Your task to perform on an android device: toggle wifi Image 0: 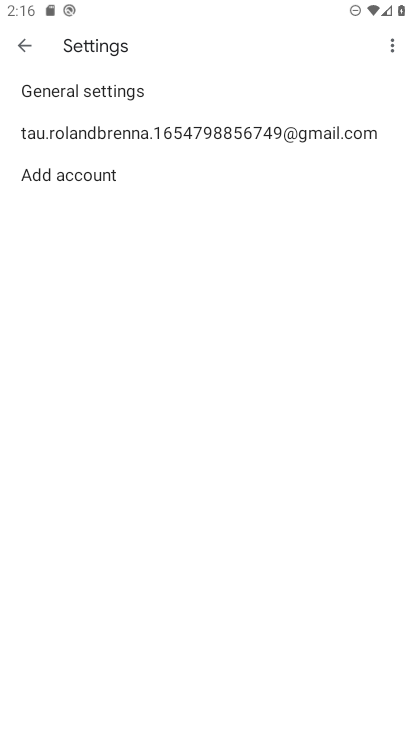
Step 0: press home button
Your task to perform on an android device: toggle wifi Image 1: 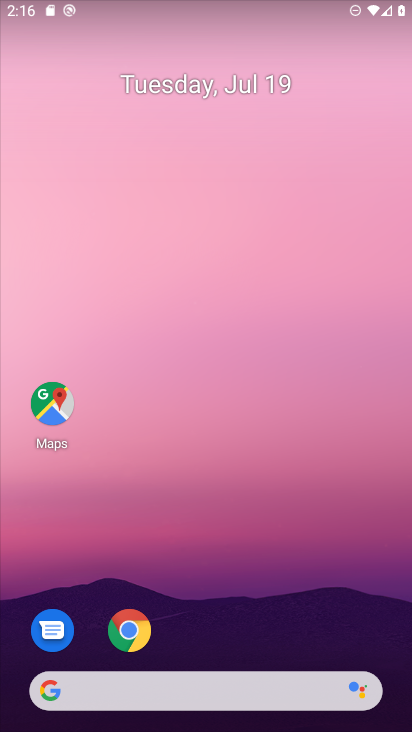
Step 1: drag from (296, 620) to (302, 122)
Your task to perform on an android device: toggle wifi Image 2: 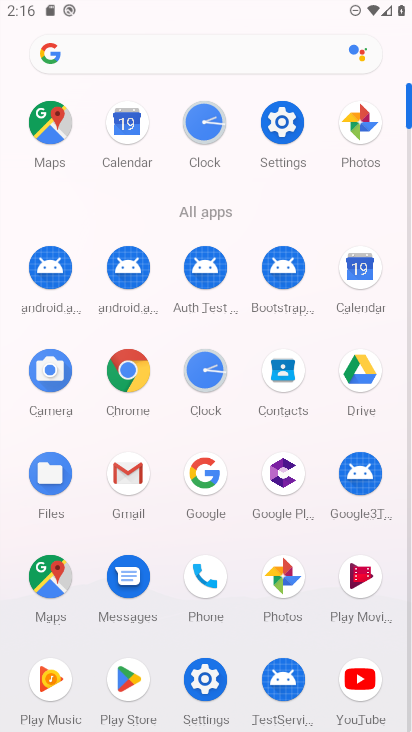
Step 2: click (206, 682)
Your task to perform on an android device: toggle wifi Image 3: 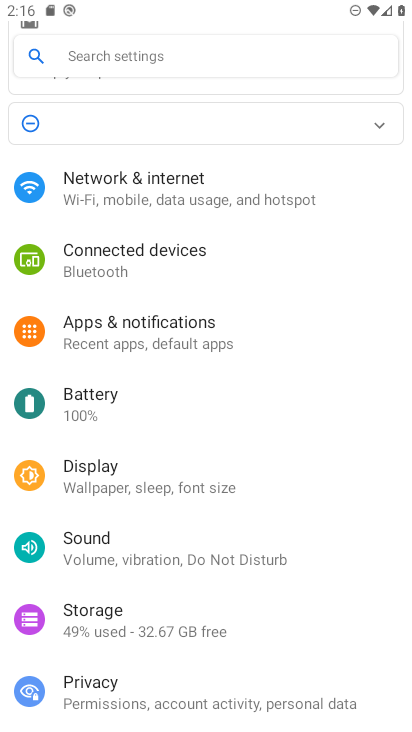
Step 3: click (114, 172)
Your task to perform on an android device: toggle wifi Image 4: 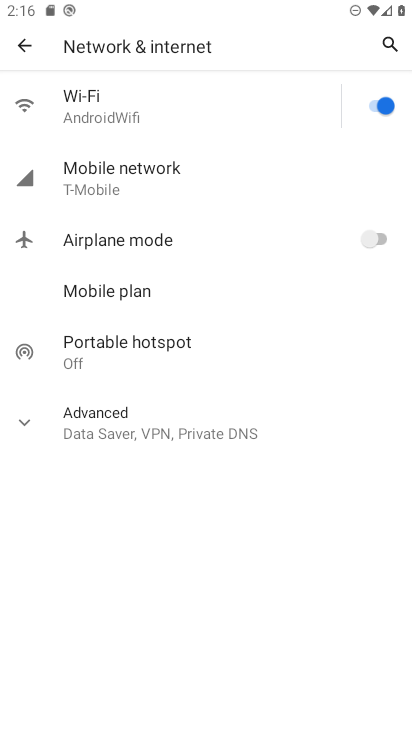
Step 4: click (374, 108)
Your task to perform on an android device: toggle wifi Image 5: 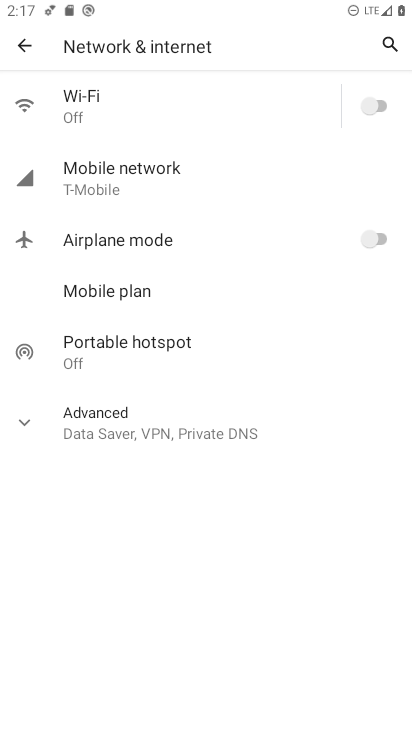
Step 5: task complete